Your task to perform on an android device: Open location settings Image 0: 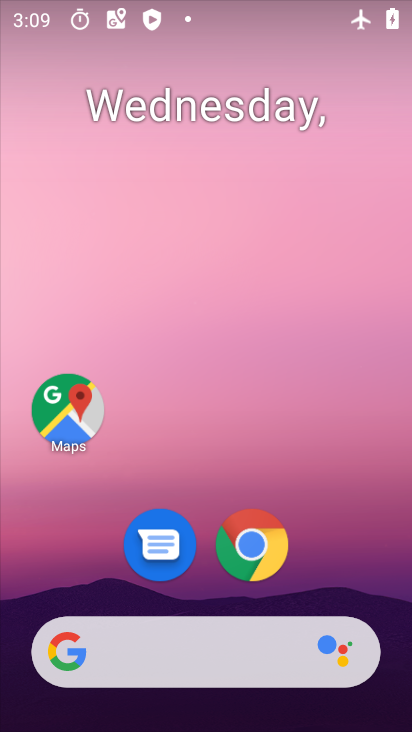
Step 0: drag from (368, 570) to (320, 169)
Your task to perform on an android device: Open location settings Image 1: 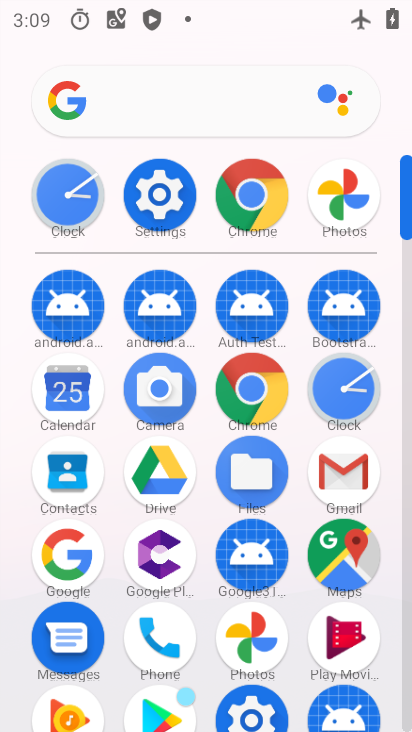
Step 1: click (160, 206)
Your task to perform on an android device: Open location settings Image 2: 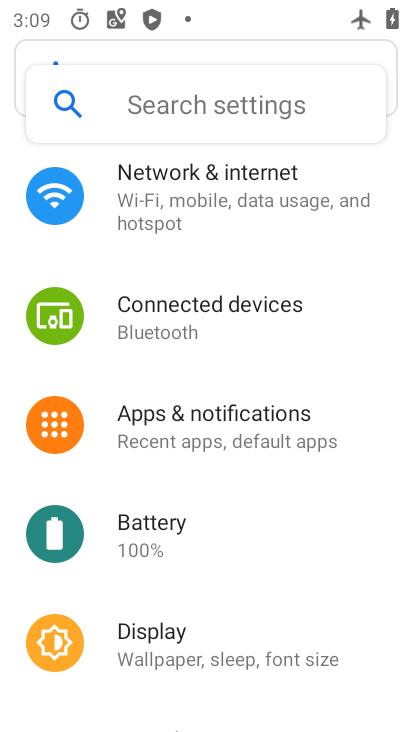
Step 2: drag from (289, 608) to (297, 282)
Your task to perform on an android device: Open location settings Image 3: 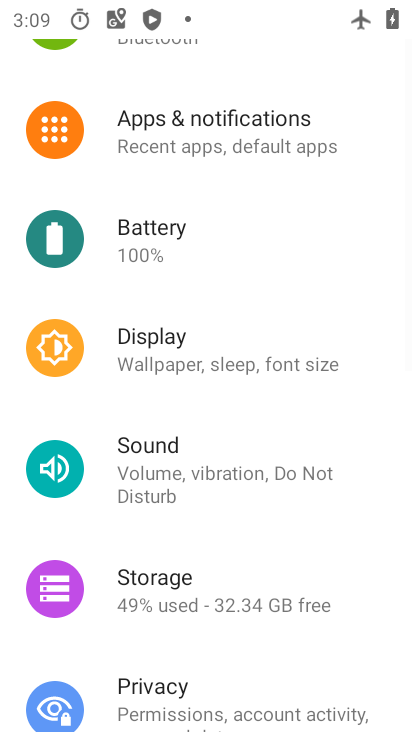
Step 3: drag from (305, 621) to (276, 300)
Your task to perform on an android device: Open location settings Image 4: 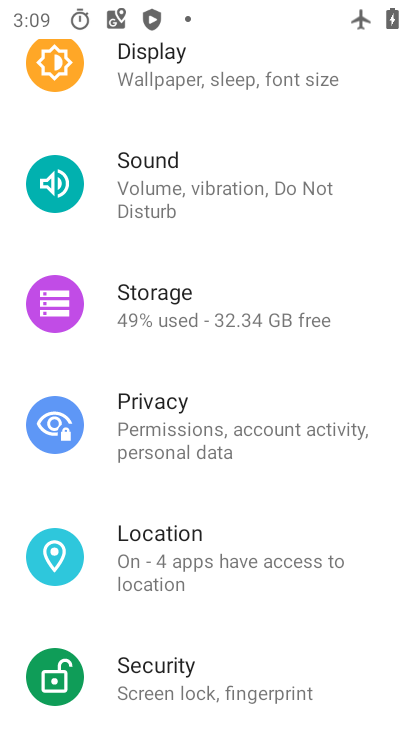
Step 4: click (209, 563)
Your task to perform on an android device: Open location settings Image 5: 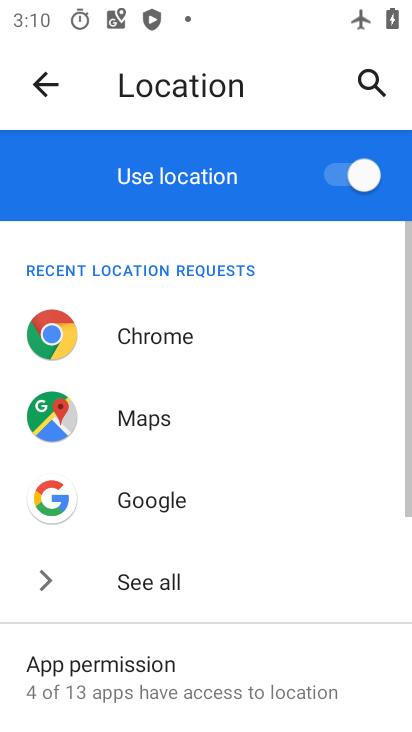
Step 5: task complete